Your task to perform on an android device: toggle sleep mode Image 0: 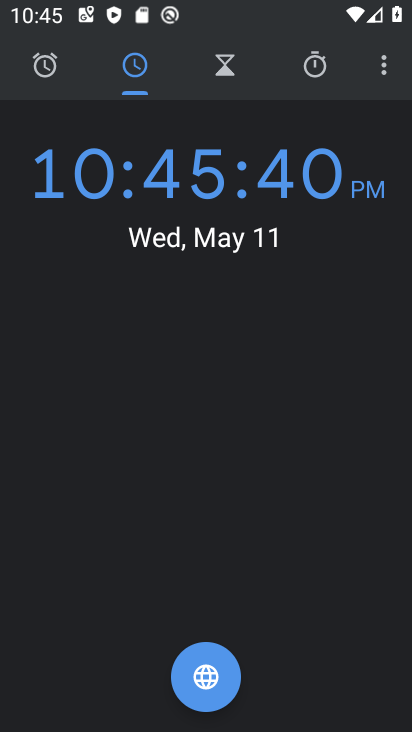
Step 0: press home button
Your task to perform on an android device: toggle sleep mode Image 1: 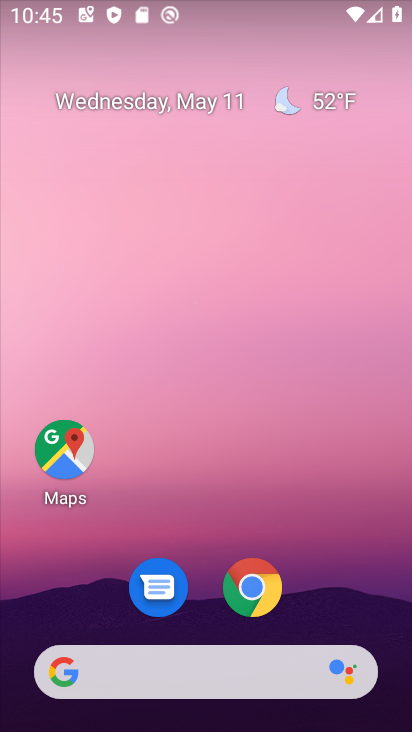
Step 1: drag from (184, 708) to (281, 136)
Your task to perform on an android device: toggle sleep mode Image 2: 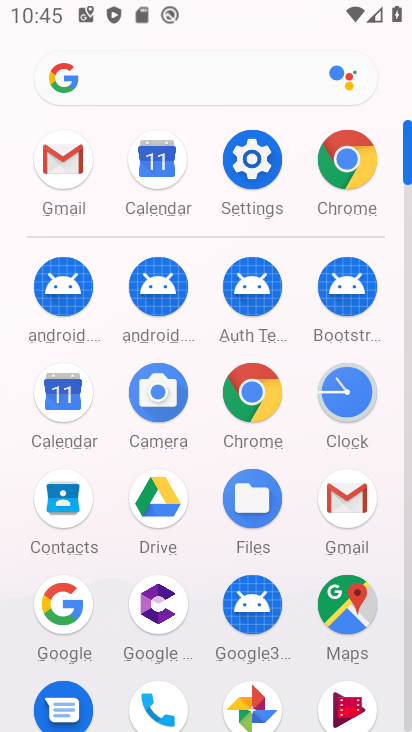
Step 2: click (248, 180)
Your task to perform on an android device: toggle sleep mode Image 3: 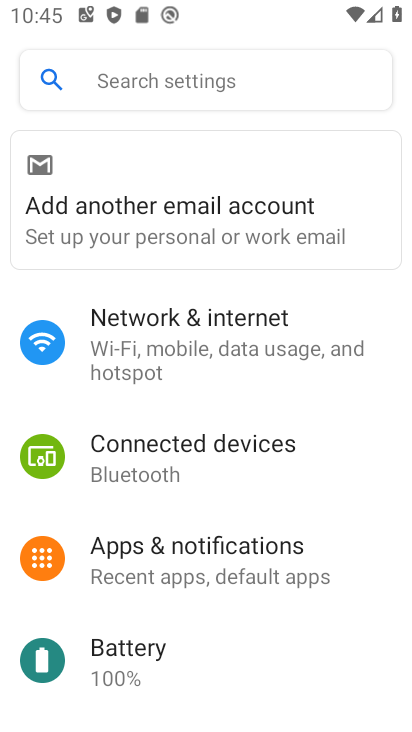
Step 3: click (173, 89)
Your task to perform on an android device: toggle sleep mode Image 4: 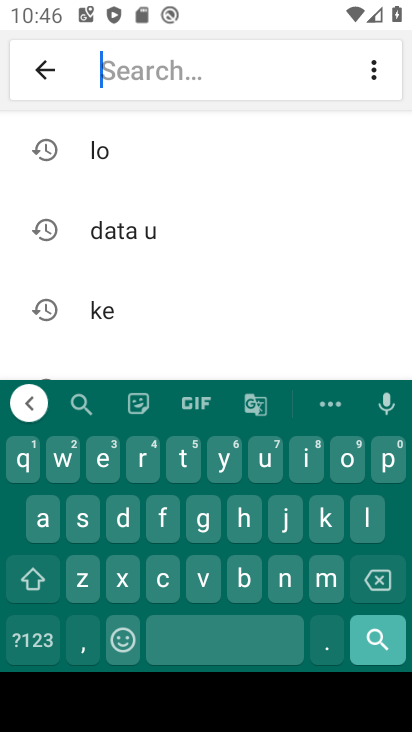
Step 4: click (81, 528)
Your task to perform on an android device: toggle sleep mode Image 5: 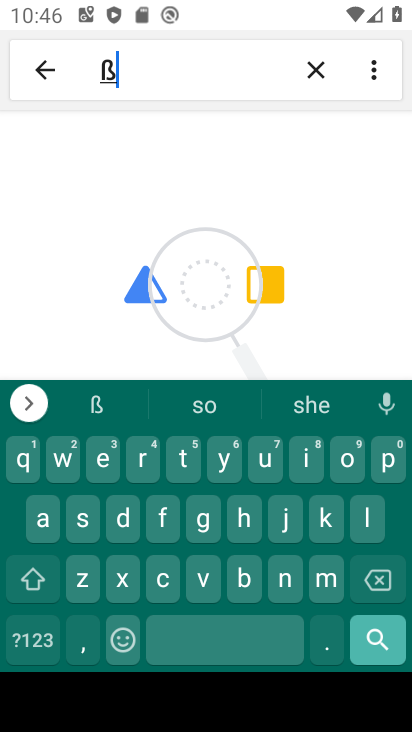
Step 5: click (377, 583)
Your task to perform on an android device: toggle sleep mode Image 6: 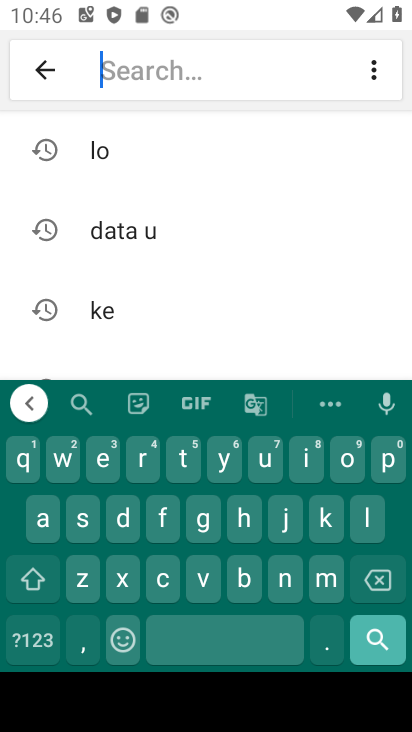
Step 6: click (78, 537)
Your task to perform on an android device: toggle sleep mode Image 7: 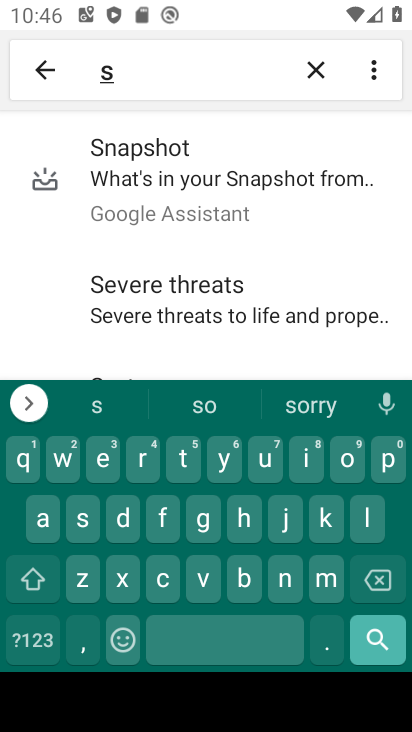
Step 7: click (380, 513)
Your task to perform on an android device: toggle sleep mode Image 8: 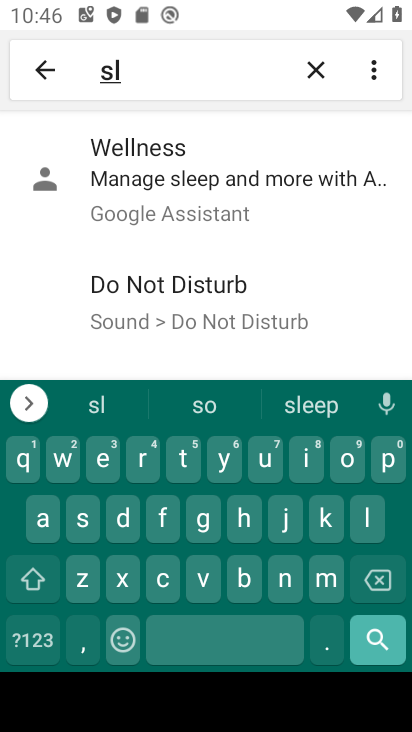
Step 8: click (172, 193)
Your task to perform on an android device: toggle sleep mode Image 9: 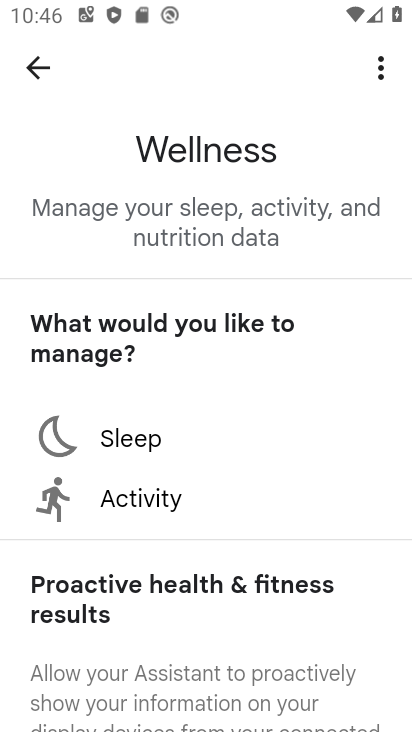
Step 9: click (103, 439)
Your task to perform on an android device: toggle sleep mode Image 10: 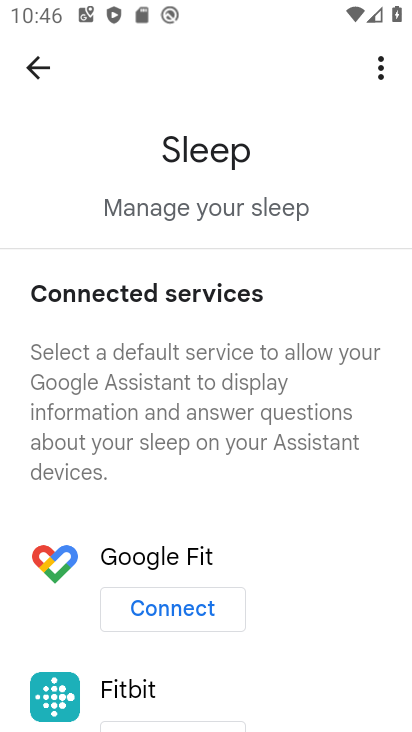
Step 10: task complete